Your task to perform on an android device: move an email to a new category in the gmail app Image 0: 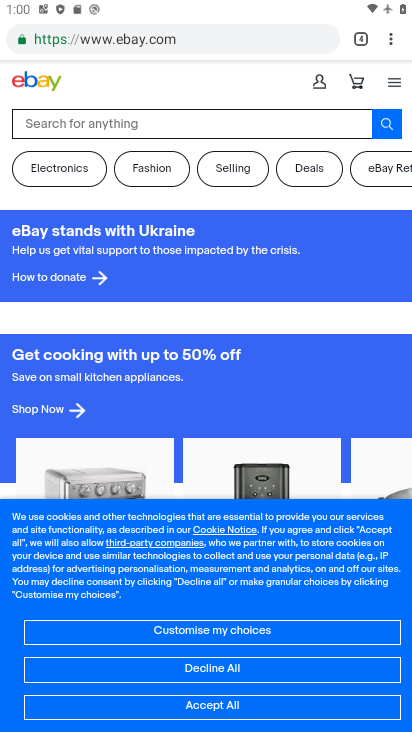
Step 0: press home button
Your task to perform on an android device: move an email to a new category in the gmail app Image 1: 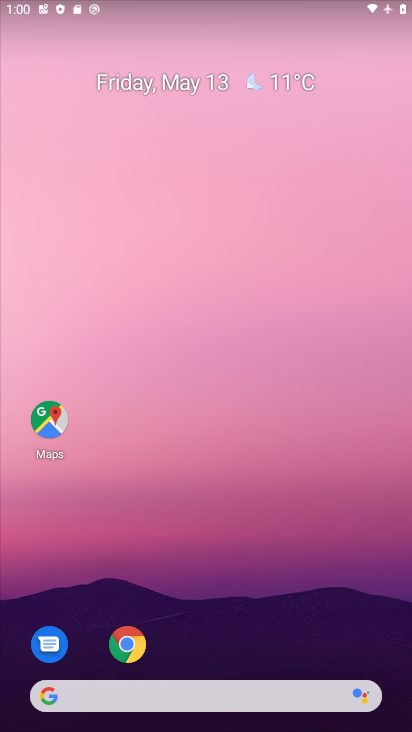
Step 1: drag from (197, 725) to (196, 167)
Your task to perform on an android device: move an email to a new category in the gmail app Image 2: 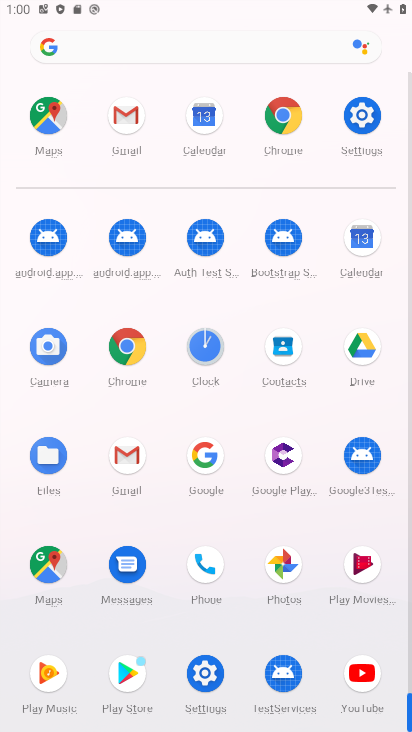
Step 2: click (132, 457)
Your task to perform on an android device: move an email to a new category in the gmail app Image 3: 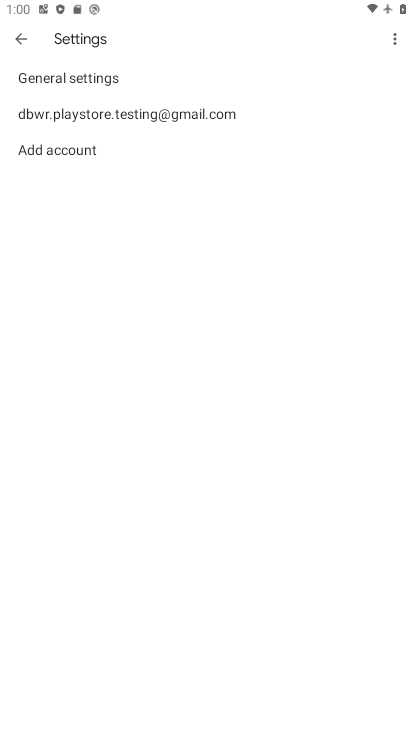
Step 3: click (158, 113)
Your task to perform on an android device: move an email to a new category in the gmail app Image 4: 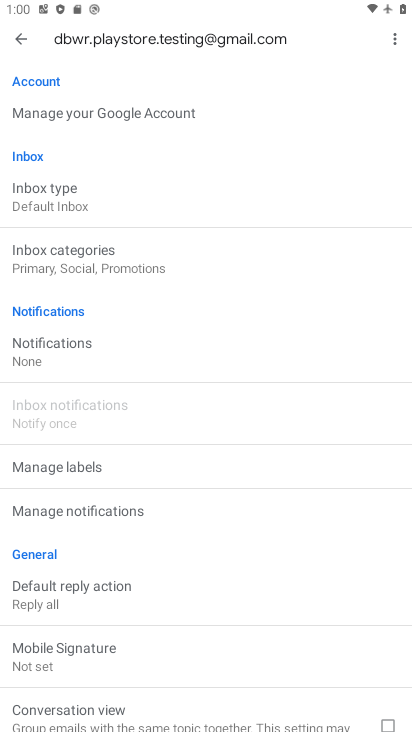
Step 4: click (19, 40)
Your task to perform on an android device: move an email to a new category in the gmail app Image 5: 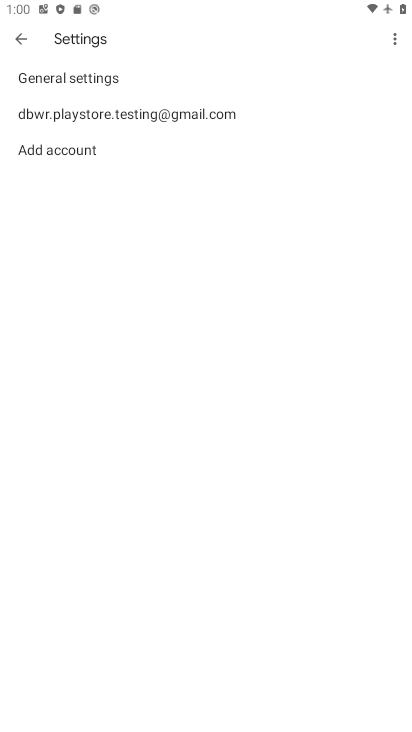
Step 5: click (19, 40)
Your task to perform on an android device: move an email to a new category in the gmail app Image 6: 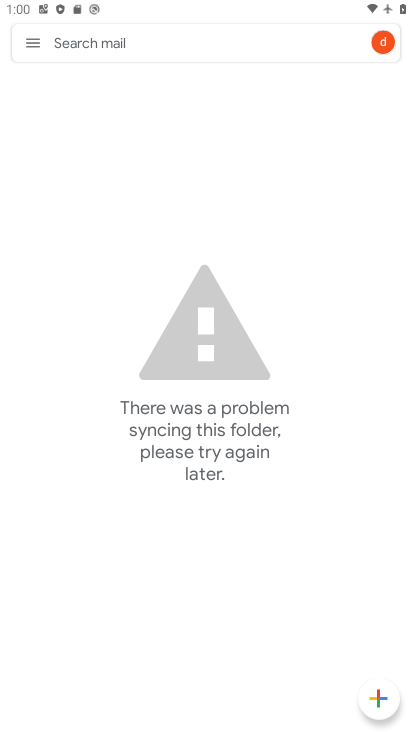
Step 6: task complete